Your task to perform on an android device: open chrome privacy settings Image 0: 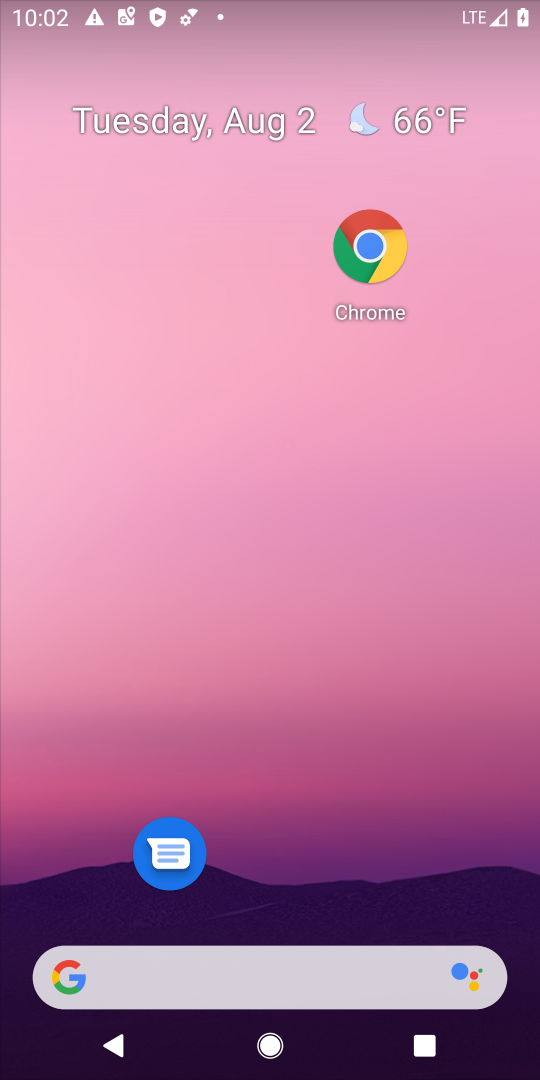
Step 0: drag from (265, 924) to (247, 241)
Your task to perform on an android device: open chrome privacy settings Image 1: 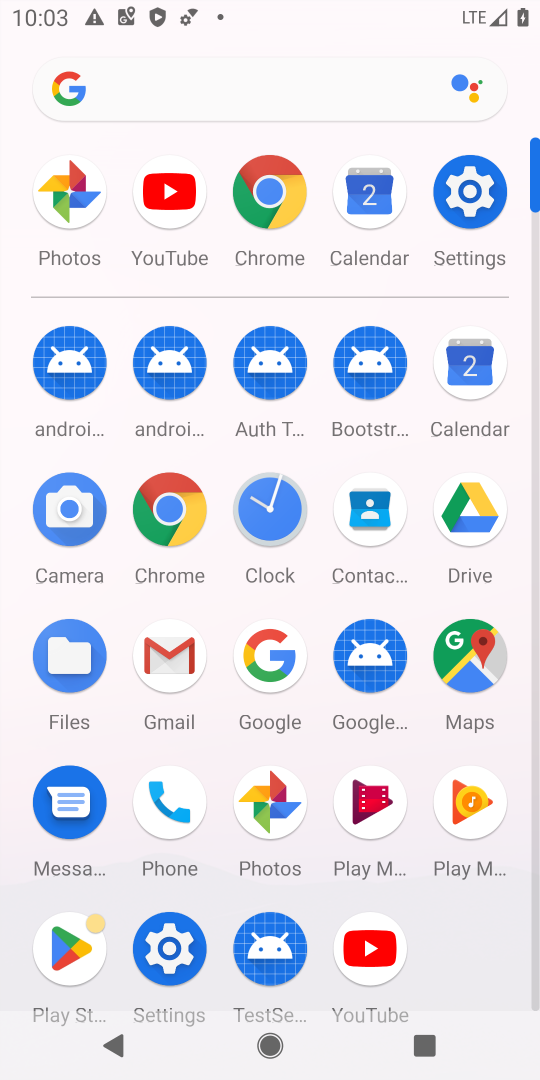
Step 1: click (183, 518)
Your task to perform on an android device: open chrome privacy settings Image 2: 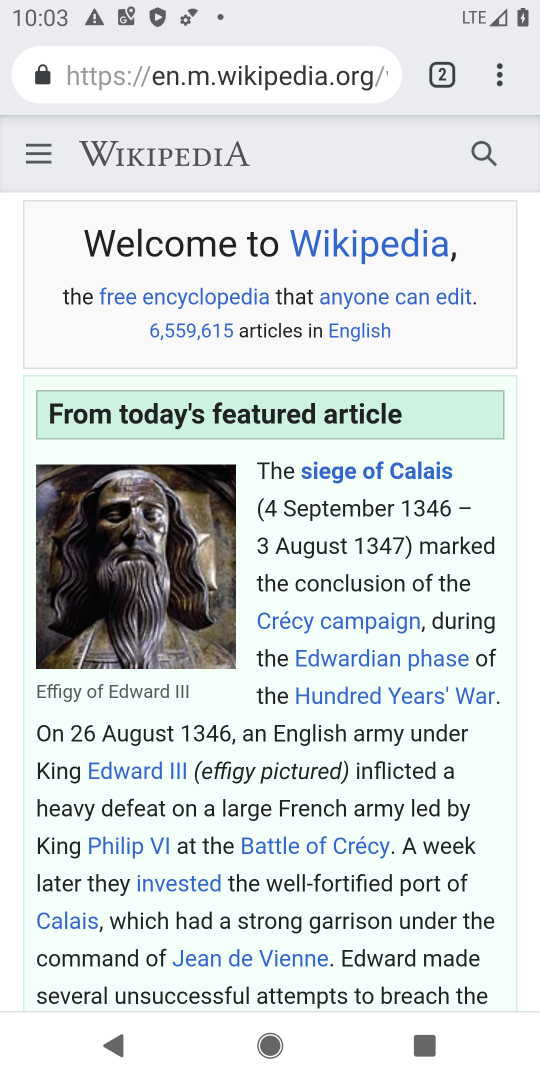
Step 2: click (507, 89)
Your task to perform on an android device: open chrome privacy settings Image 3: 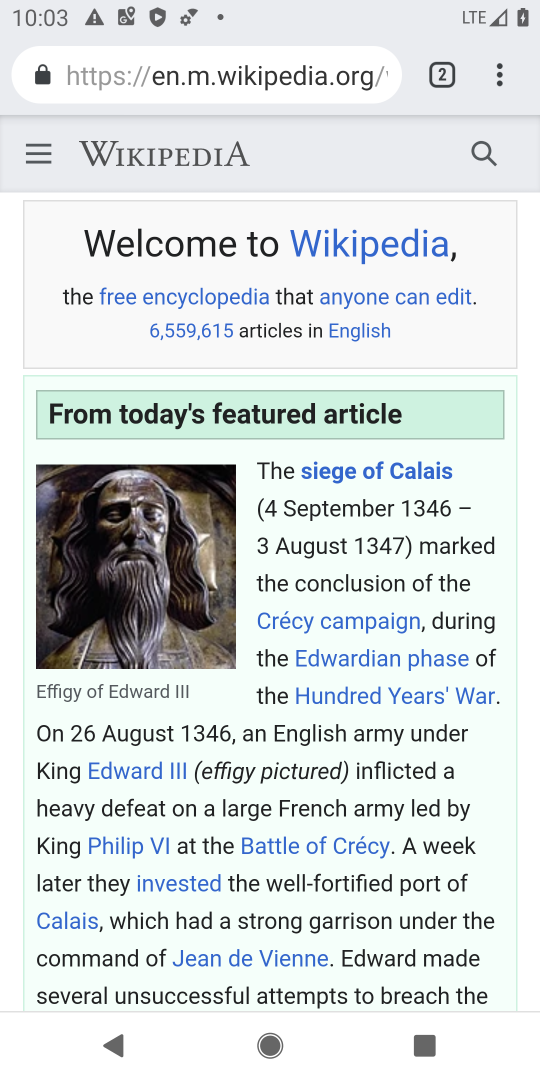
Step 3: drag from (499, 92) to (258, 911)
Your task to perform on an android device: open chrome privacy settings Image 4: 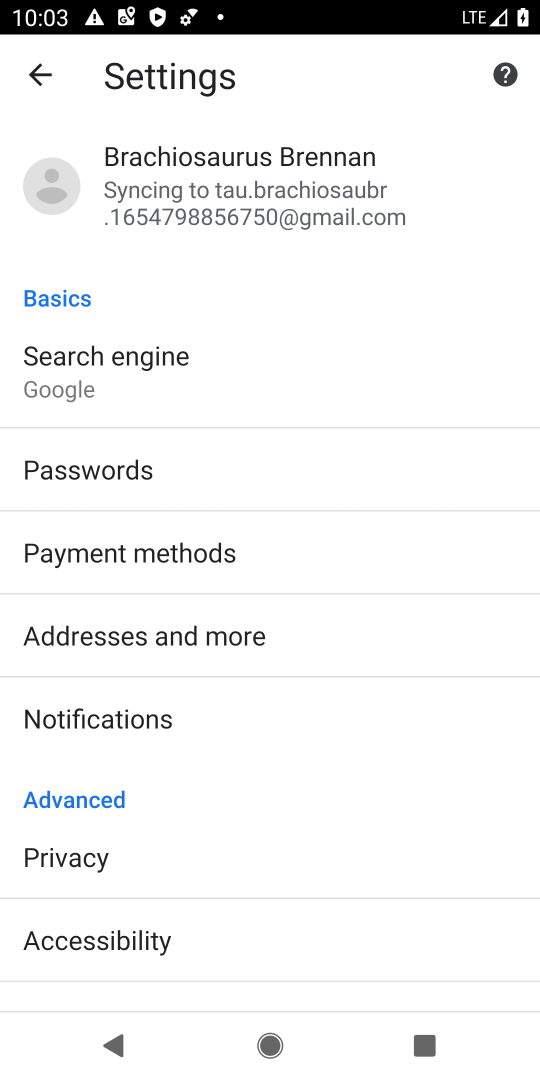
Step 4: click (152, 863)
Your task to perform on an android device: open chrome privacy settings Image 5: 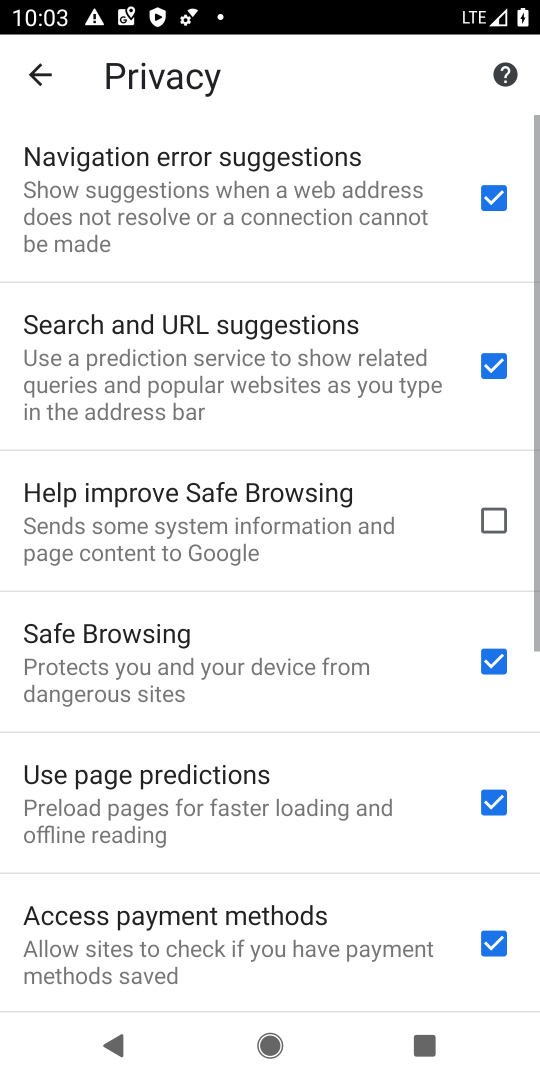
Step 5: task complete